Your task to perform on an android device: Do I have any events this weekend? Image 0: 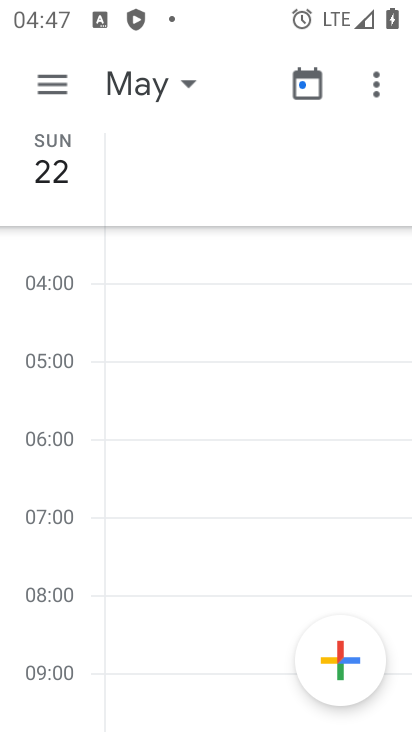
Step 0: click (189, 79)
Your task to perform on an android device: Do I have any events this weekend? Image 1: 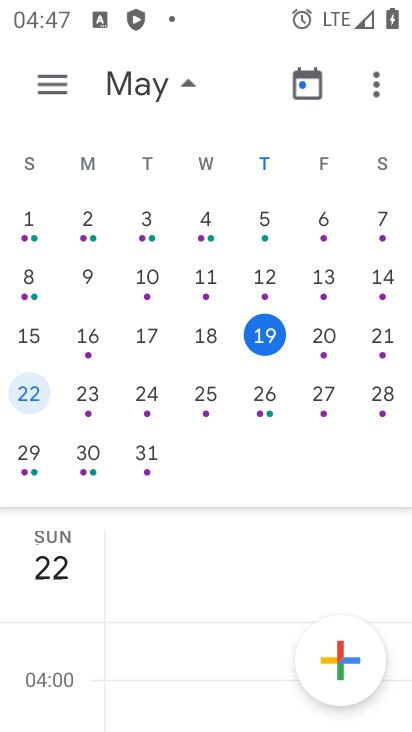
Step 1: click (376, 331)
Your task to perform on an android device: Do I have any events this weekend? Image 2: 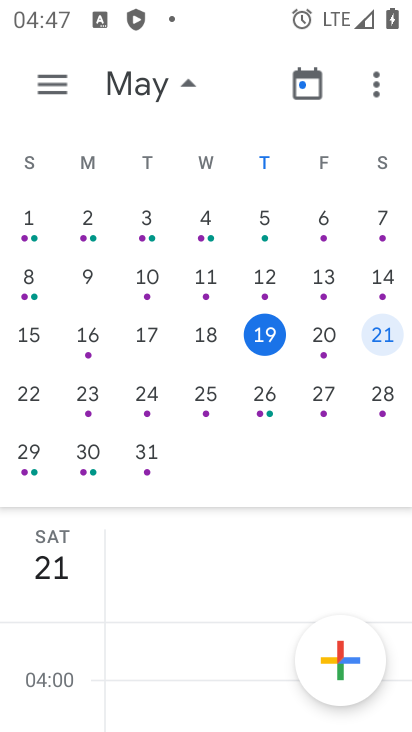
Step 2: task complete